Your task to perform on an android device: Set the phone to "Do not disturb". Image 0: 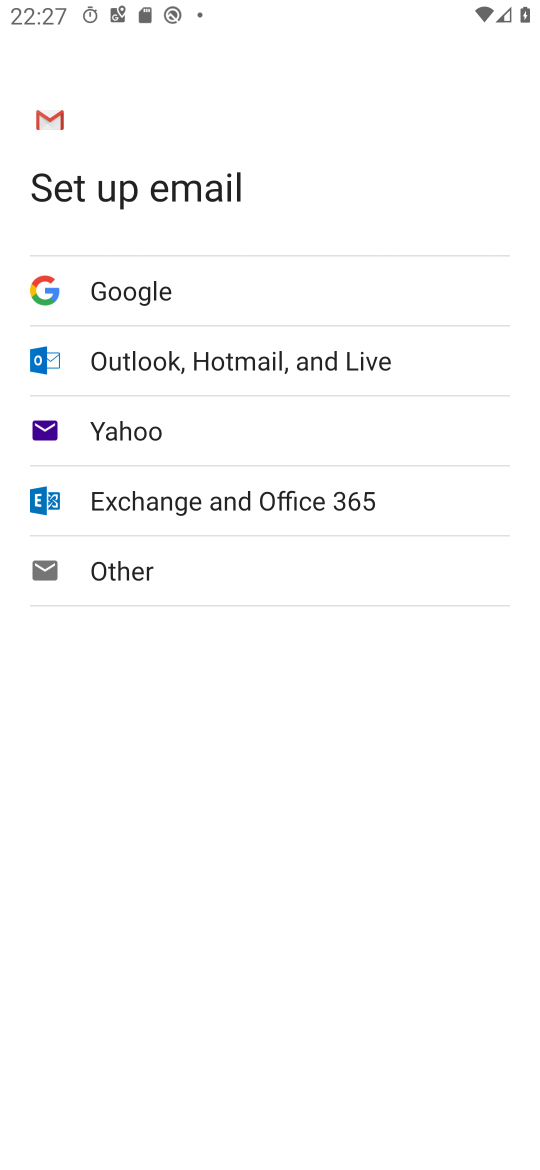
Step 0: press home button
Your task to perform on an android device: Set the phone to "Do not disturb". Image 1: 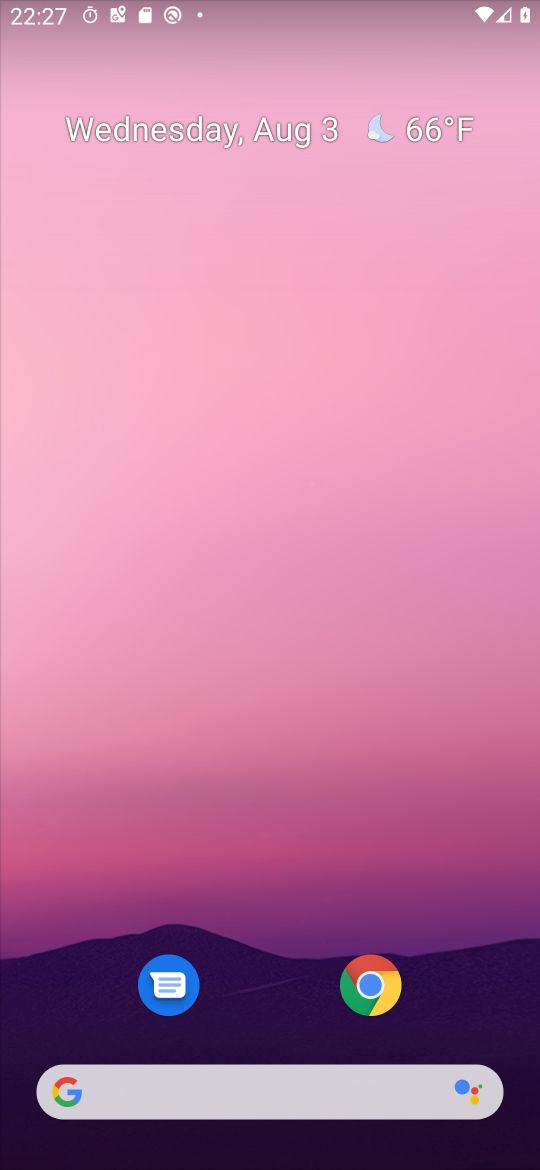
Step 1: drag from (230, 860) to (228, 207)
Your task to perform on an android device: Set the phone to "Do not disturb". Image 2: 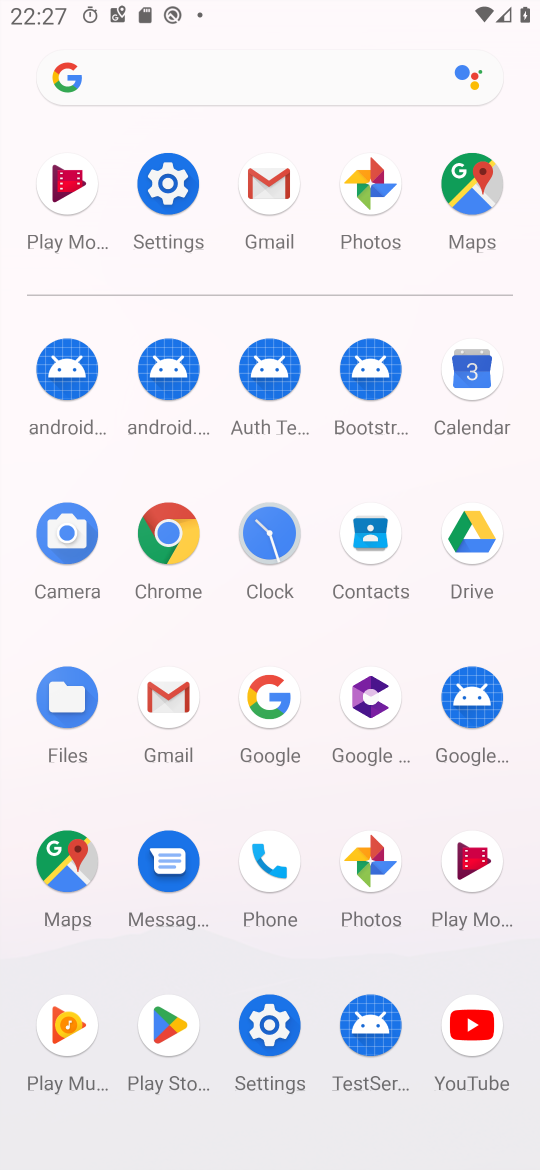
Step 2: click (148, 184)
Your task to perform on an android device: Set the phone to "Do not disturb". Image 3: 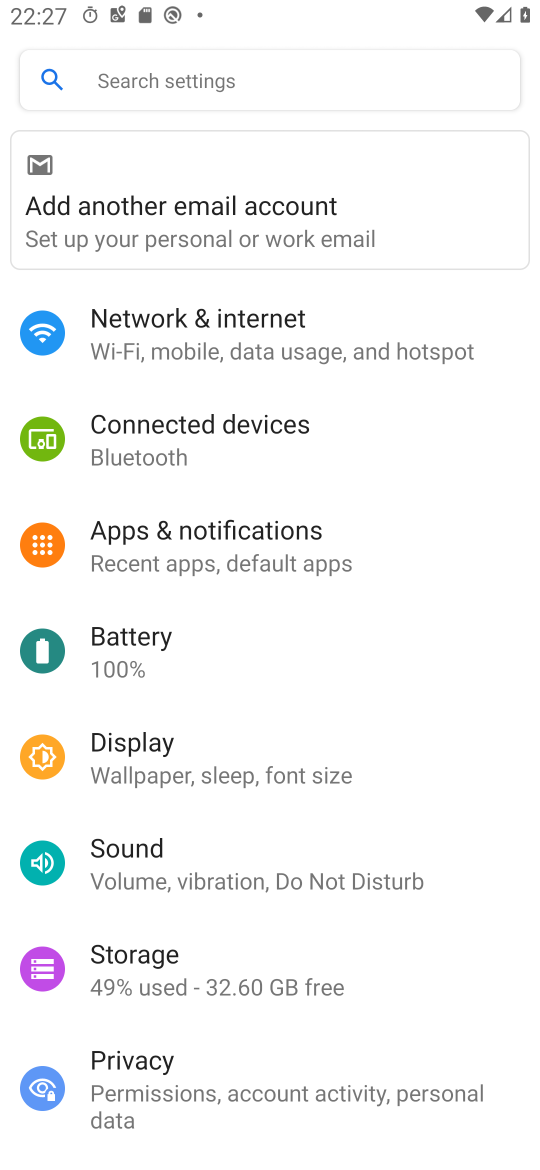
Step 3: click (230, 849)
Your task to perform on an android device: Set the phone to "Do not disturb". Image 4: 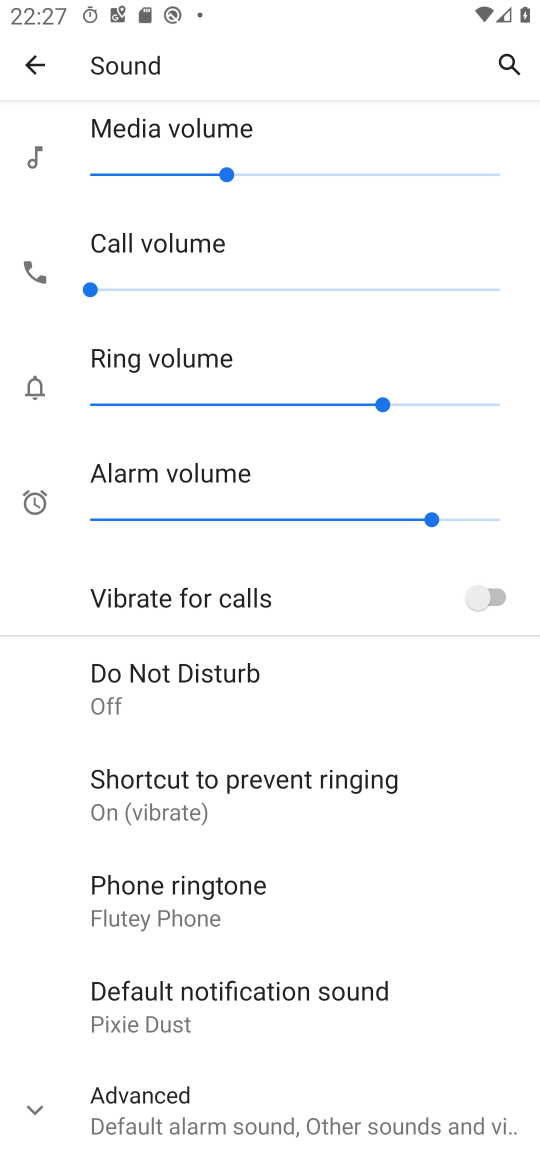
Step 4: click (199, 696)
Your task to perform on an android device: Set the phone to "Do not disturb". Image 5: 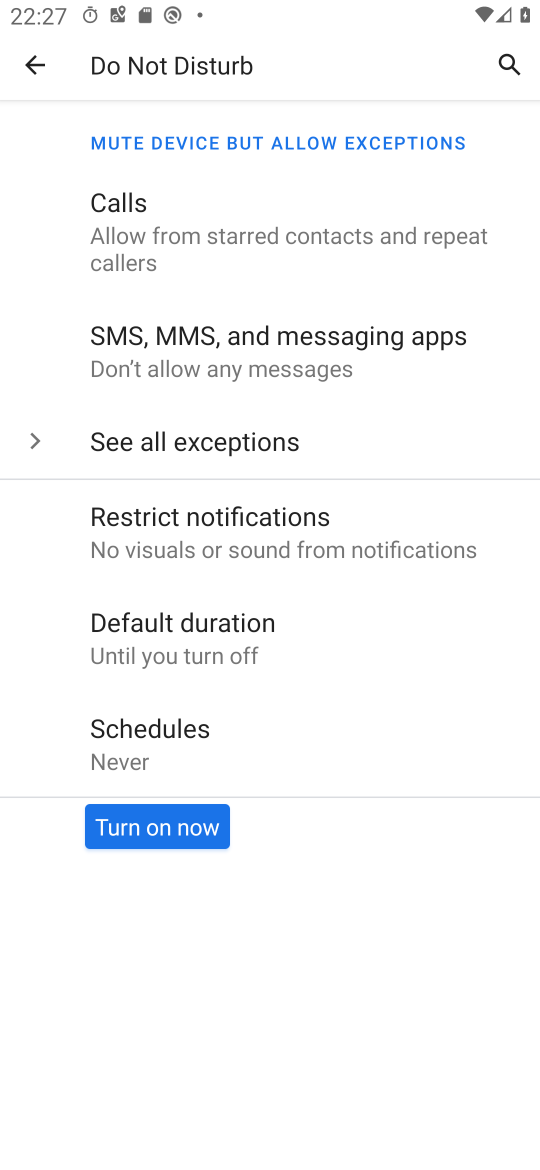
Step 5: click (181, 833)
Your task to perform on an android device: Set the phone to "Do not disturb". Image 6: 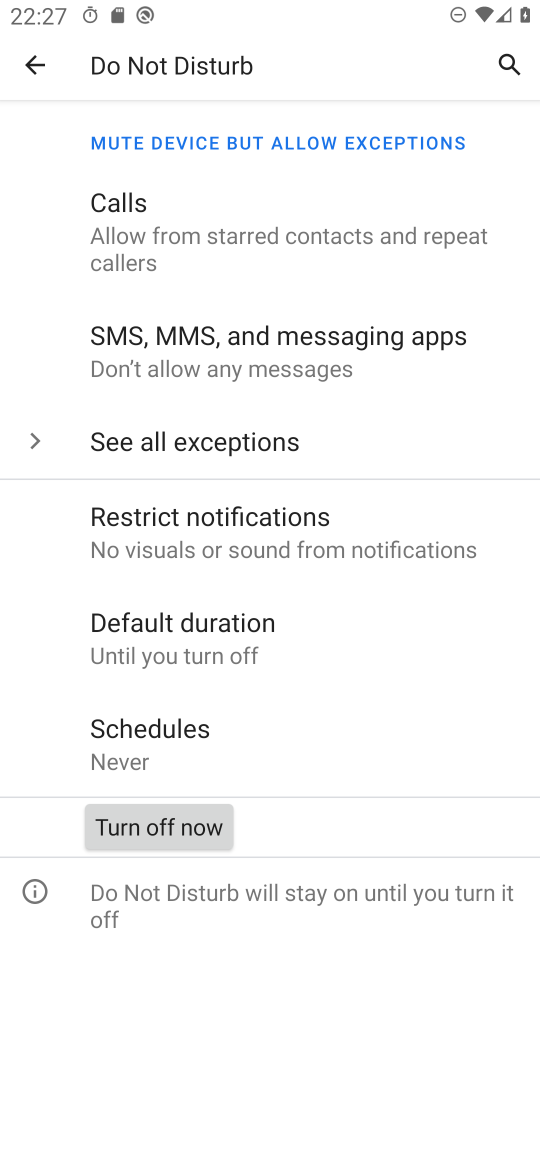
Step 6: task complete